Your task to perform on an android device: clear all cookies in the chrome app Image 0: 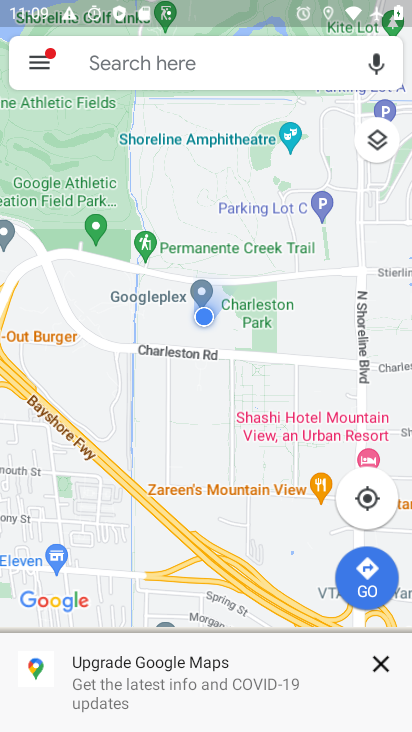
Step 0: press home button
Your task to perform on an android device: clear all cookies in the chrome app Image 1: 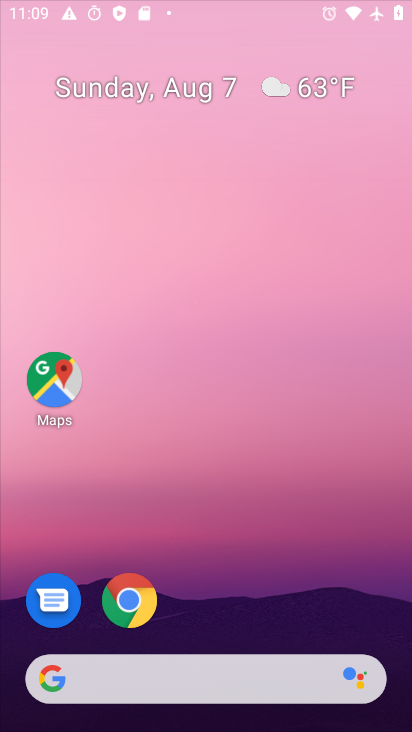
Step 1: drag from (192, 357) to (211, 134)
Your task to perform on an android device: clear all cookies in the chrome app Image 2: 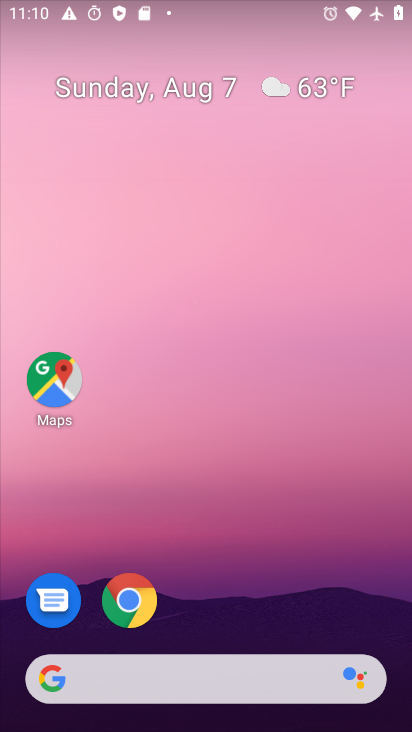
Step 2: drag from (188, 679) to (213, 158)
Your task to perform on an android device: clear all cookies in the chrome app Image 3: 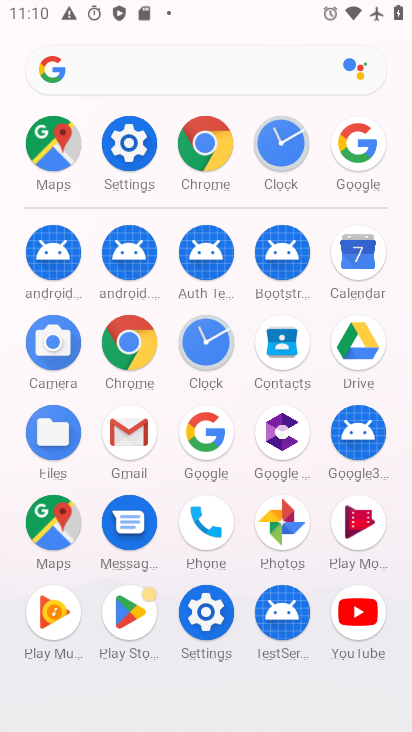
Step 3: click (207, 172)
Your task to perform on an android device: clear all cookies in the chrome app Image 4: 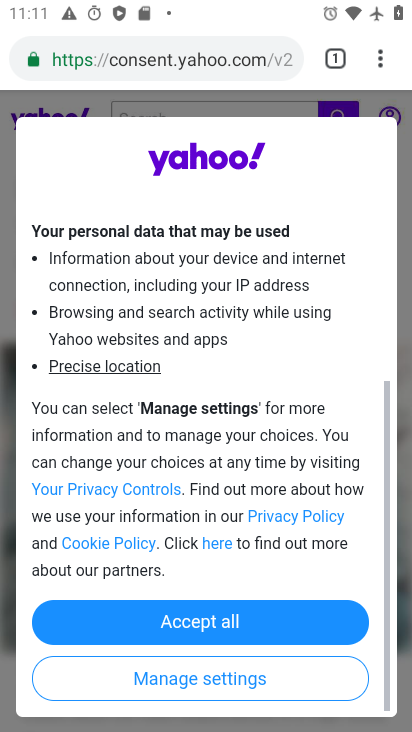
Step 4: click (376, 58)
Your task to perform on an android device: clear all cookies in the chrome app Image 5: 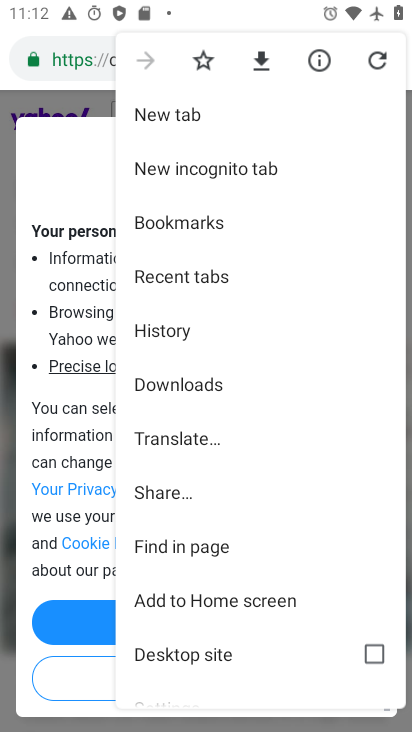
Step 5: click (184, 330)
Your task to perform on an android device: clear all cookies in the chrome app Image 6: 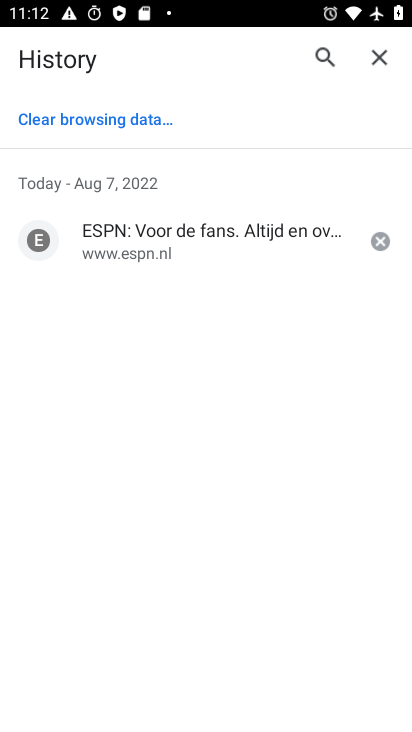
Step 6: click (95, 115)
Your task to perform on an android device: clear all cookies in the chrome app Image 7: 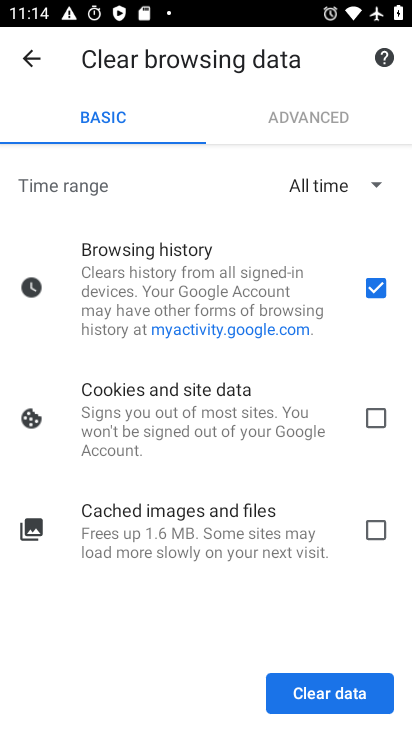
Step 7: click (371, 291)
Your task to perform on an android device: clear all cookies in the chrome app Image 8: 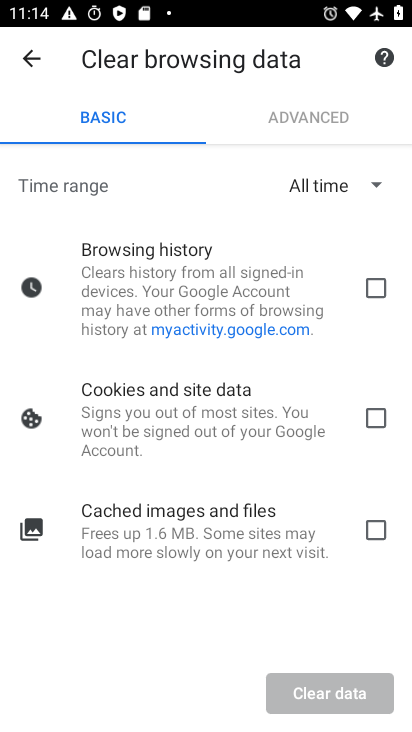
Step 8: click (371, 416)
Your task to perform on an android device: clear all cookies in the chrome app Image 9: 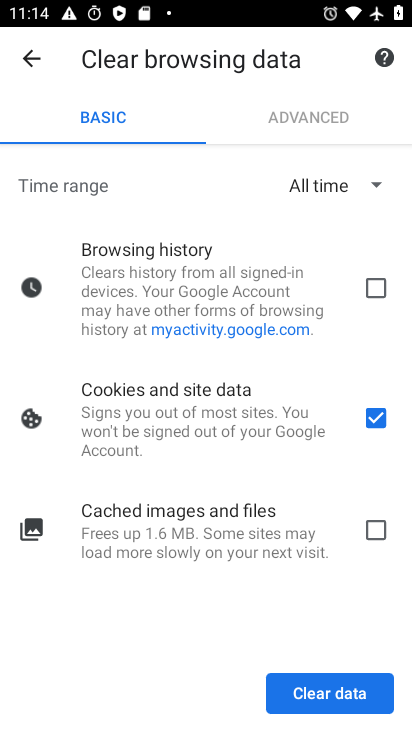
Step 9: click (335, 708)
Your task to perform on an android device: clear all cookies in the chrome app Image 10: 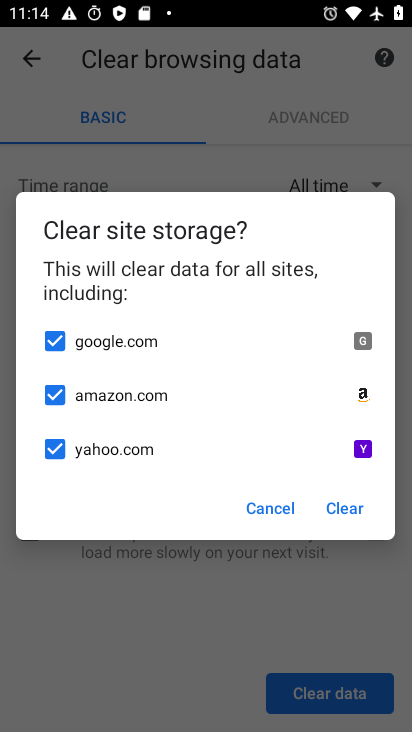
Step 10: click (346, 513)
Your task to perform on an android device: clear all cookies in the chrome app Image 11: 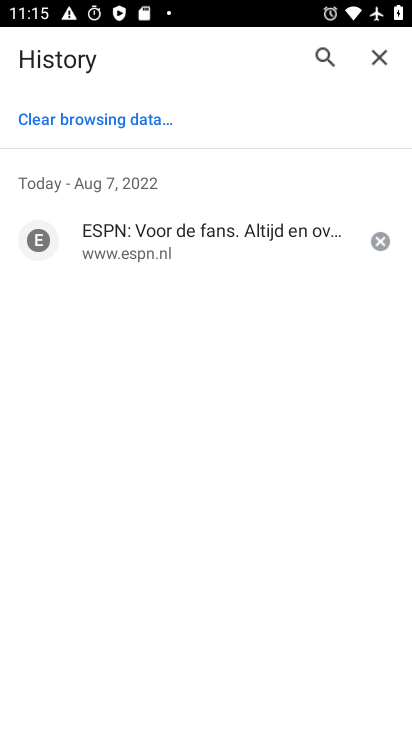
Step 11: task complete